Your task to perform on an android device: turn on the 24-hour format for clock Image 0: 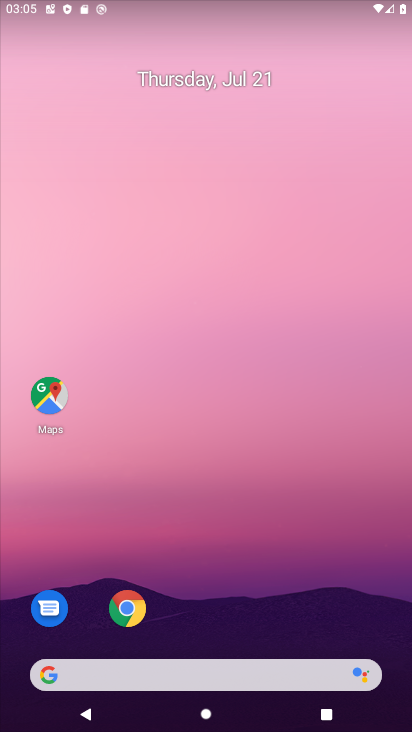
Step 0: drag from (150, 645) to (237, 157)
Your task to perform on an android device: turn on the 24-hour format for clock Image 1: 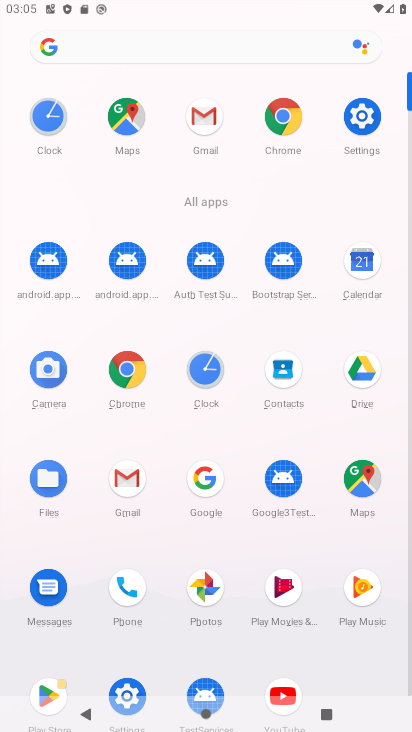
Step 1: click (202, 377)
Your task to perform on an android device: turn on the 24-hour format for clock Image 2: 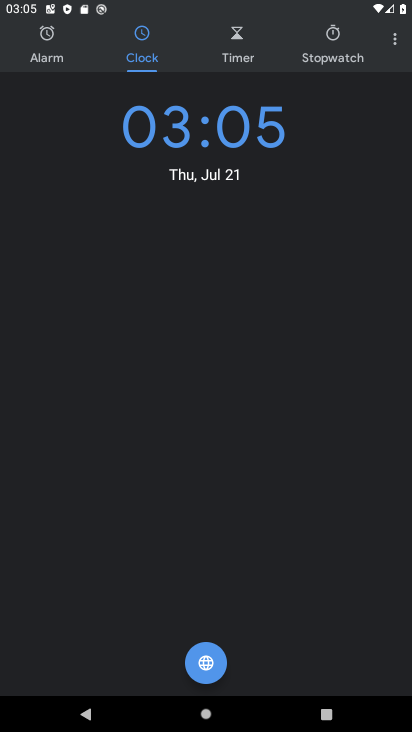
Step 2: drag from (392, 42) to (307, 80)
Your task to perform on an android device: turn on the 24-hour format for clock Image 3: 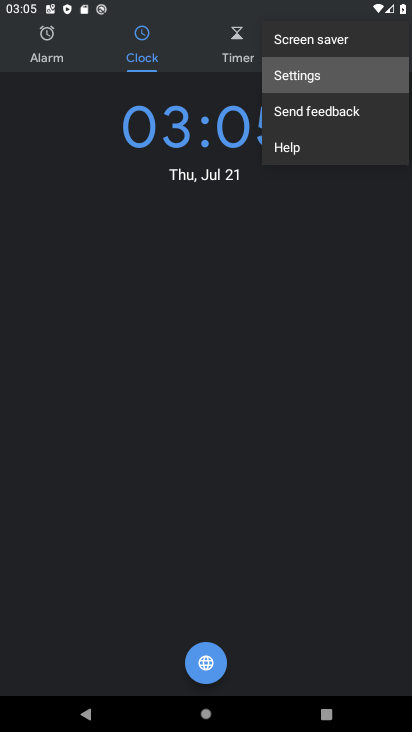
Step 3: click (307, 80)
Your task to perform on an android device: turn on the 24-hour format for clock Image 4: 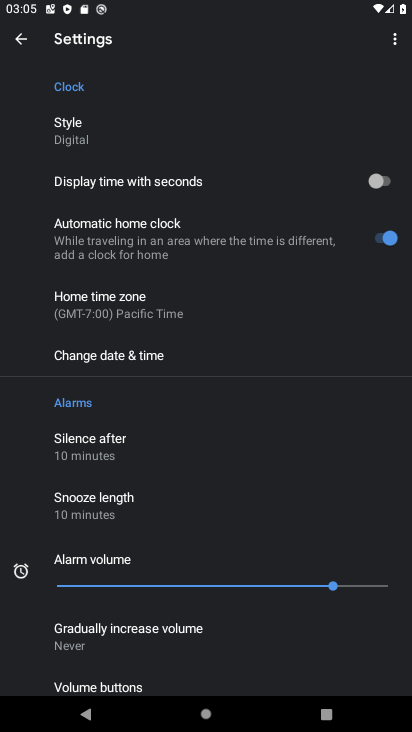
Step 4: click (111, 362)
Your task to perform on an android device: turn on the 24-hour format for clock Image 5: 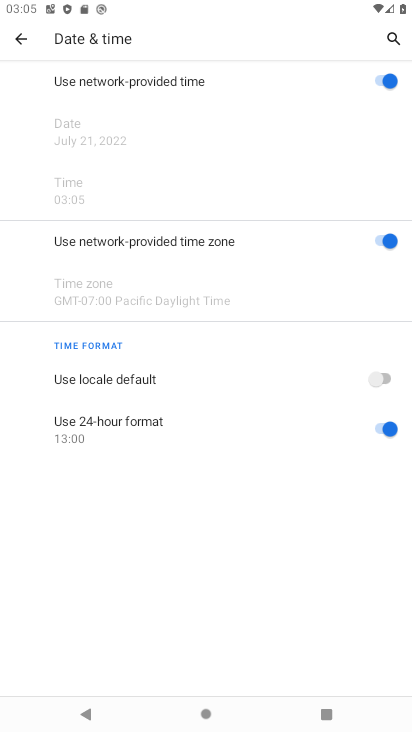
Step 5: task complete